Your task to perform on an android device: turn off sleep mode Image 0: 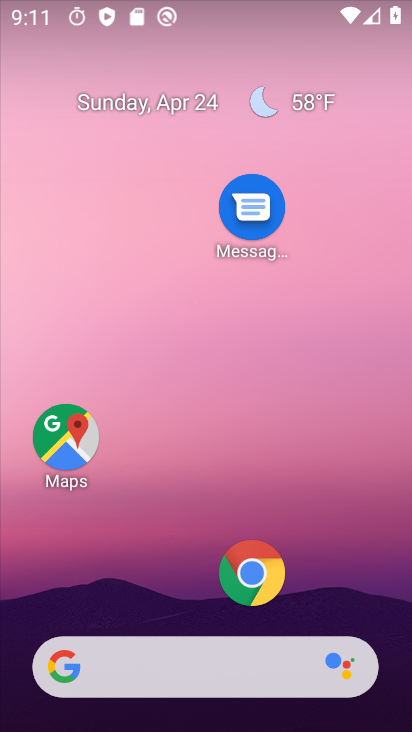
Step 0: drag from (224, 183) to (272, 4)
Your task to perform on an android device: turn off sleep mode Image 1: 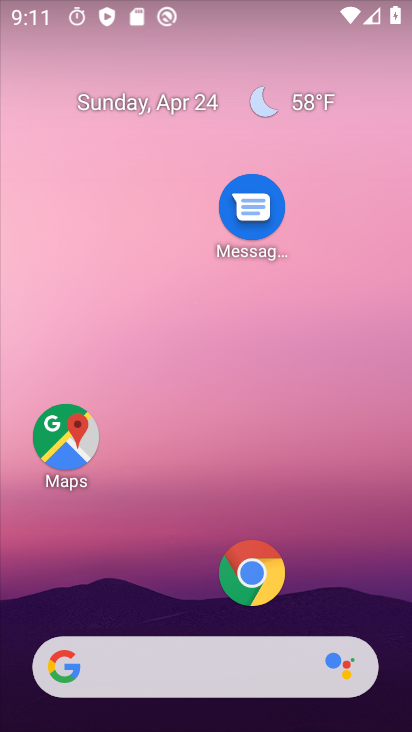
Step 1: drag from (134, 601) to (351, 21)
Your task to perform on an android device: turn off sleep mode Image 2: 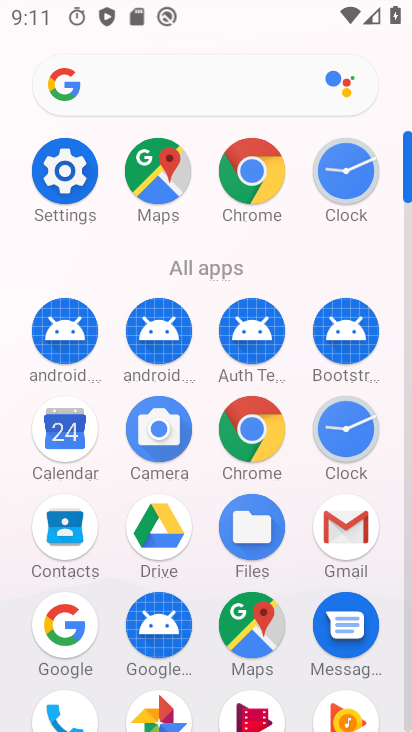
Step 2: click (77, 188)
Your task to perform on an android device: turn off sleep mode Image 3: 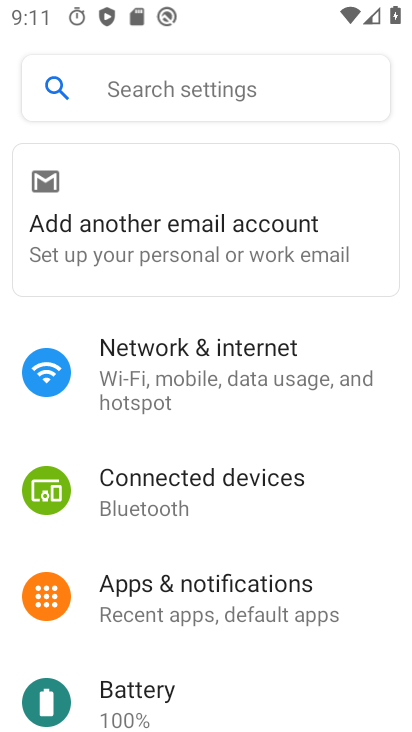
Step 3: click (193, 92)
Your task to perform on an android device: turn off sleep mode Image 4: 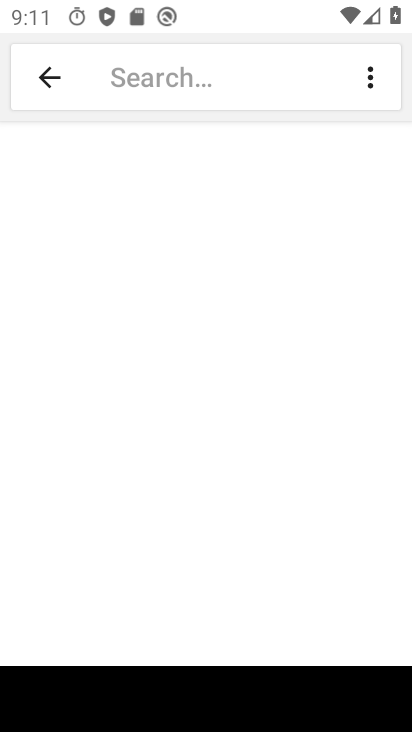
Step 4: type "sleep mode"
Your task to perform on an android device: turn off sleep mode Image 5: 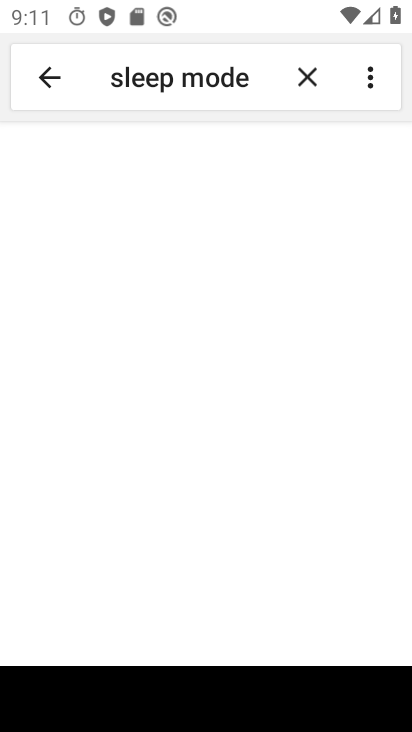
Step 5: task complete